Your task to perform on an android device: Open display settings Image 0: 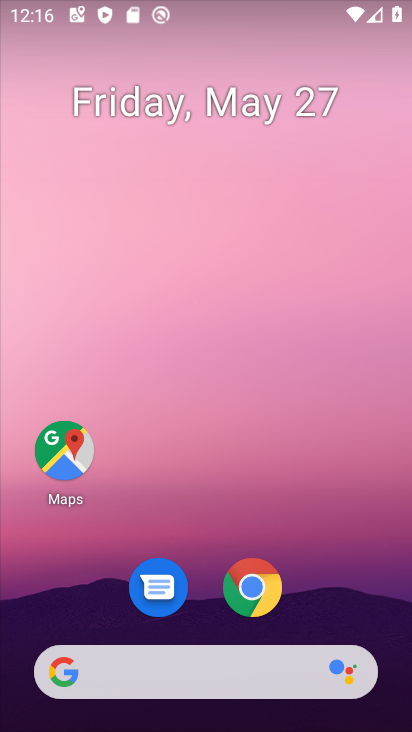
Step 0: drag from (152, 489) to (84, 63)
Your task to perform on an android device: Open display settings Image 1: 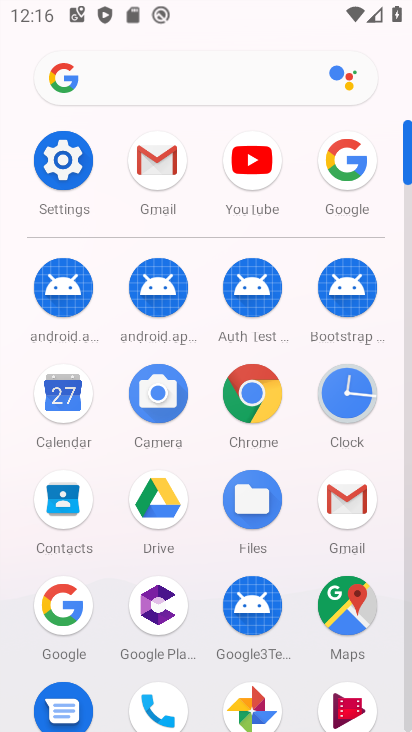
Step 1: click (53, 170)
Your task to perform on an android device: Open display settings Image 2: 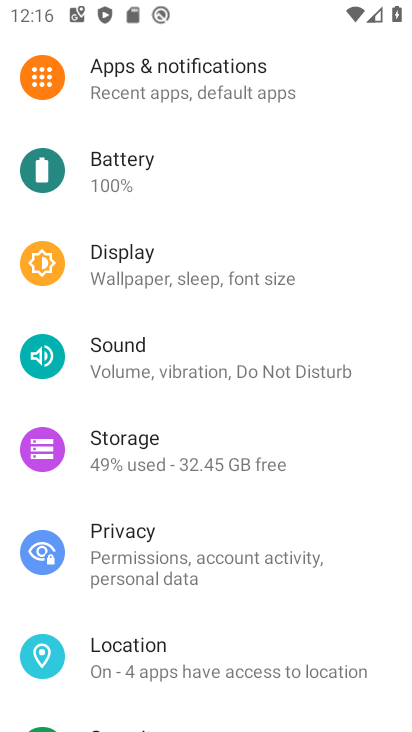
Step 2: click (174, 279)
Your task to perform on an android device: Open display settings Image 3: 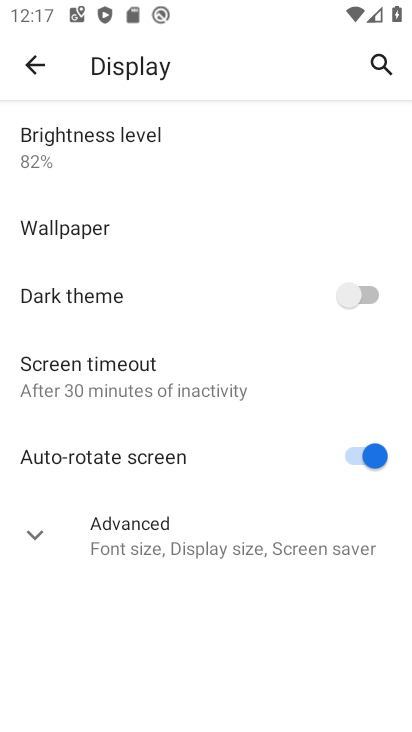
Step 3: task complete